Your task to perform on an android device: toggle improve location accuracy Image 0: 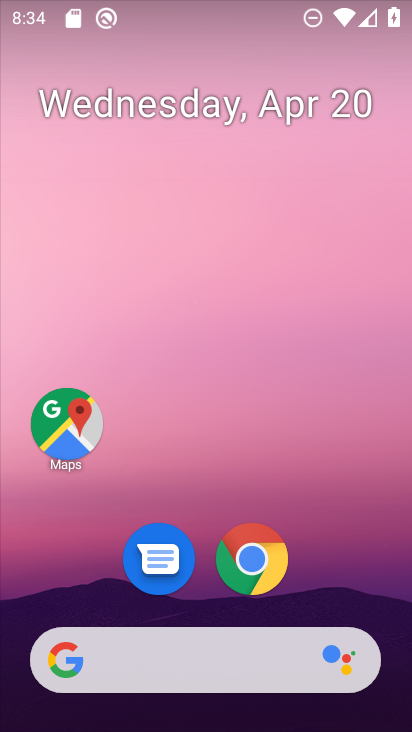
Step 0: drag from (370, 606) to (261, 141)
Your task to perform on an android device: toggle improve location accuracy Image 1: 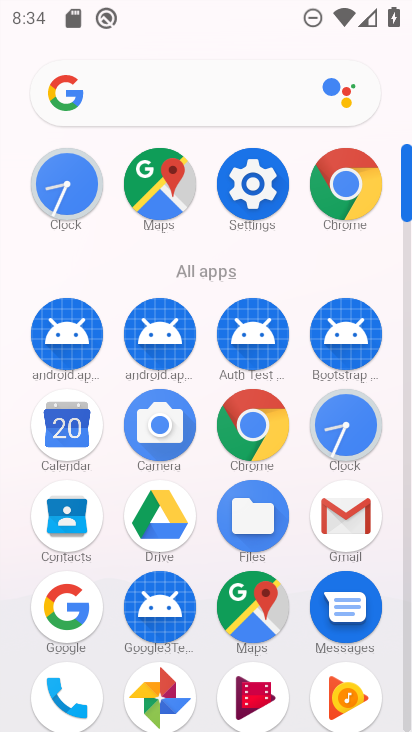
Step 1: click (407, 680)
Your task to perform on an android device: toggle improve location accuracy Image 2: 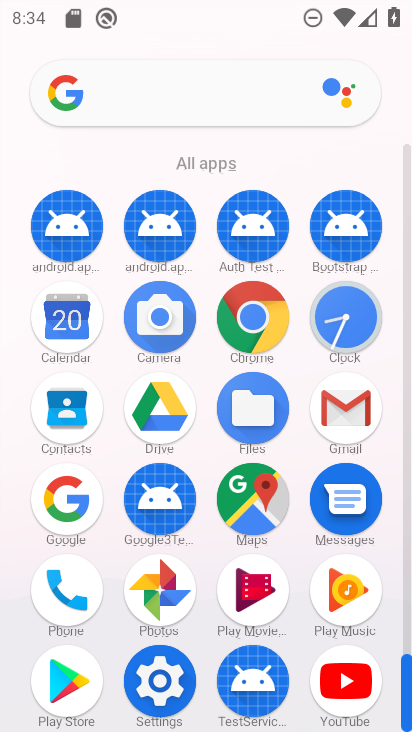
Step 2: click (164, 681)
Your task to perform on an android device: toggle improve location accuracy Image 3: 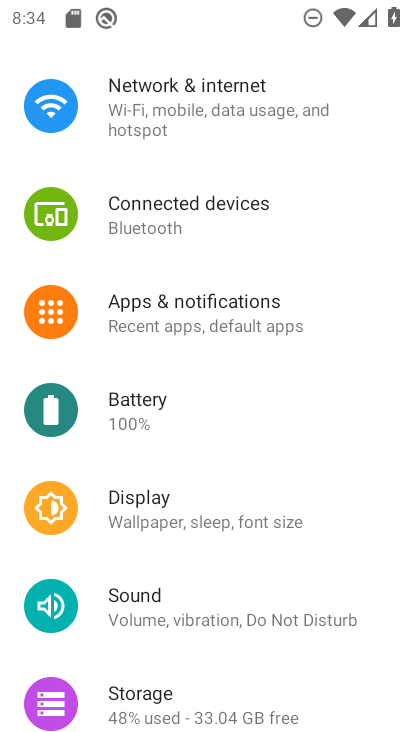
Step 3: drag from (292, 600) to (270, 205)
Your task to perform on an android device: toggle improve location accuracy Image 4: 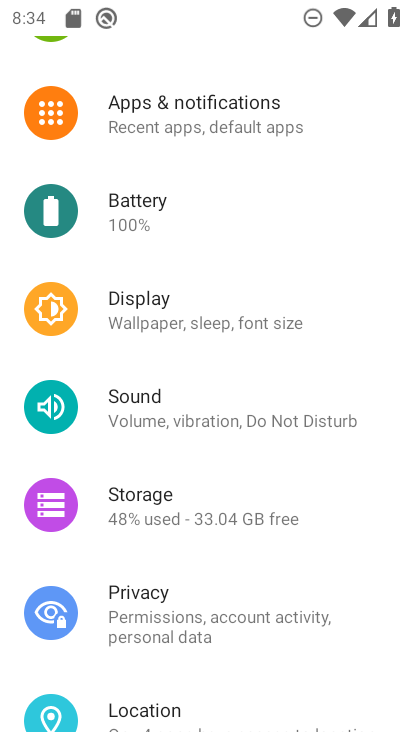
Step 4: drag from (300, 606) to (278, 303)
Your task to perform on an android device: toggle improve location accuracy Image 5: 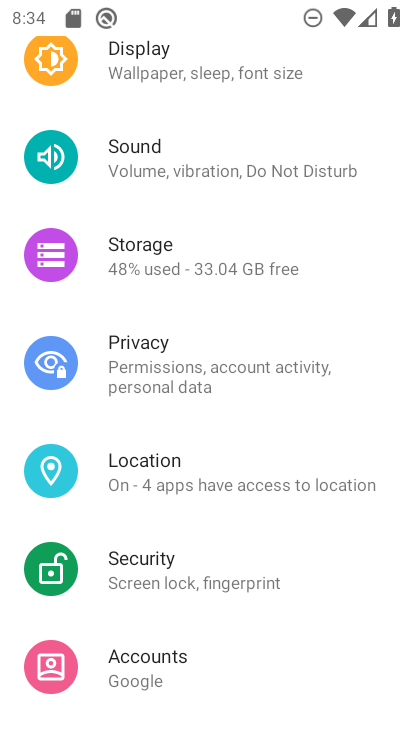
Step 5: click (151, 466)
Your task to perform on an android device: toggle improve location accuracy Image 6: 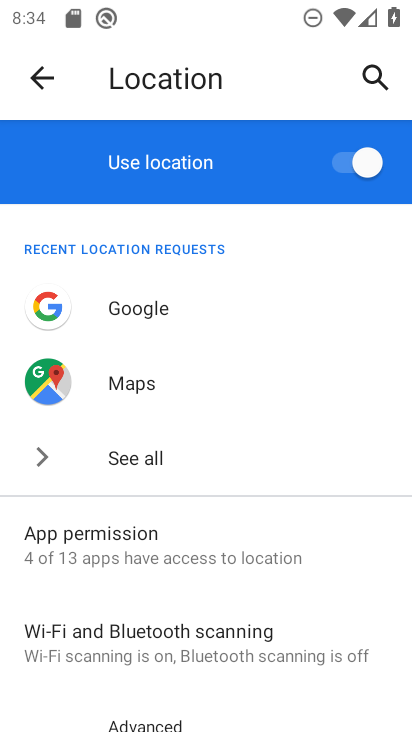
Step 6: drag from (270, 577) to (251, 380)
Your task to perform on an android device: toggle improve location accuracy Image 7: 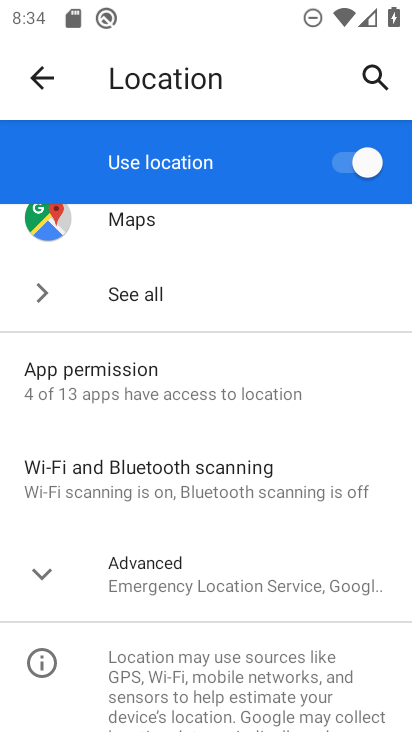
Step 7: click (40, 568)
Your task to perform on an android device: toggle improve location accuracy Image 8: 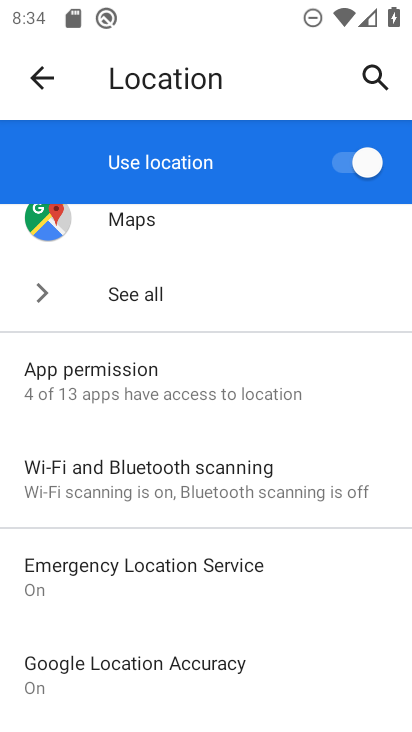
Step 8: click (151, 668)
Your task to perform on an android device: toggle improve location accuracy Image 9: 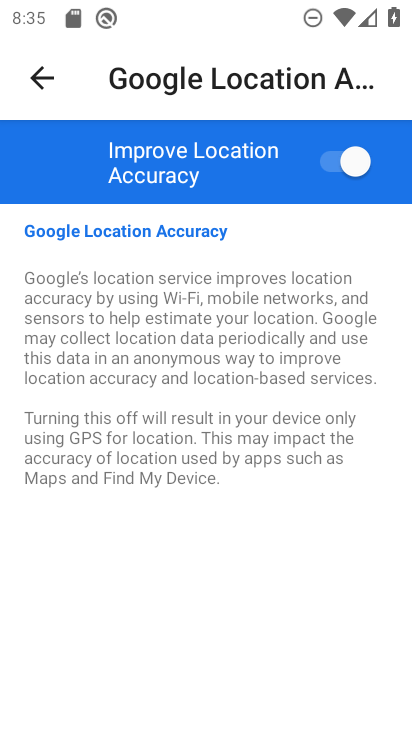
Step 9: click (325, 158)
Your task to perform on an android device: toggle improve location accuracy Image 10: 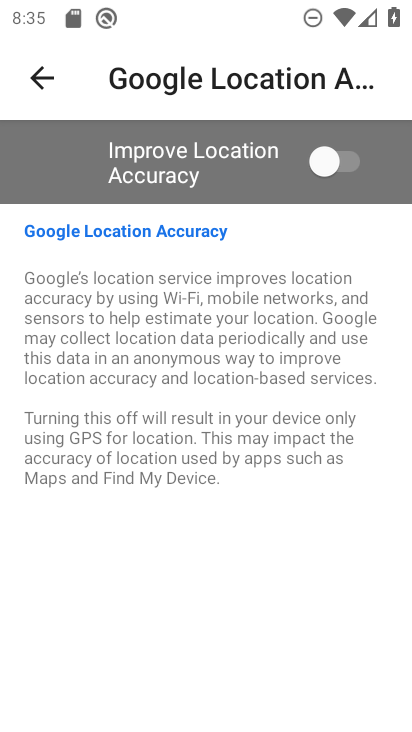
Step 10: task complete